Your task to perform on an android device: Add razer blade to the cart on costco.com Image 0: 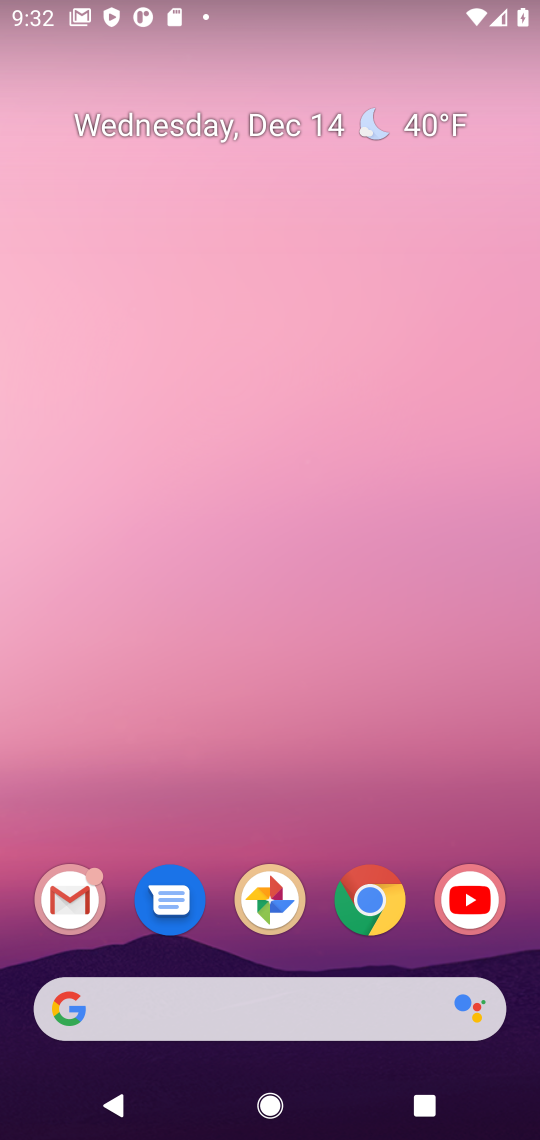
Step 0: click (361, 915)
Your task to perform on an android device: Add razer blade to the cart on costco.com Image 1: 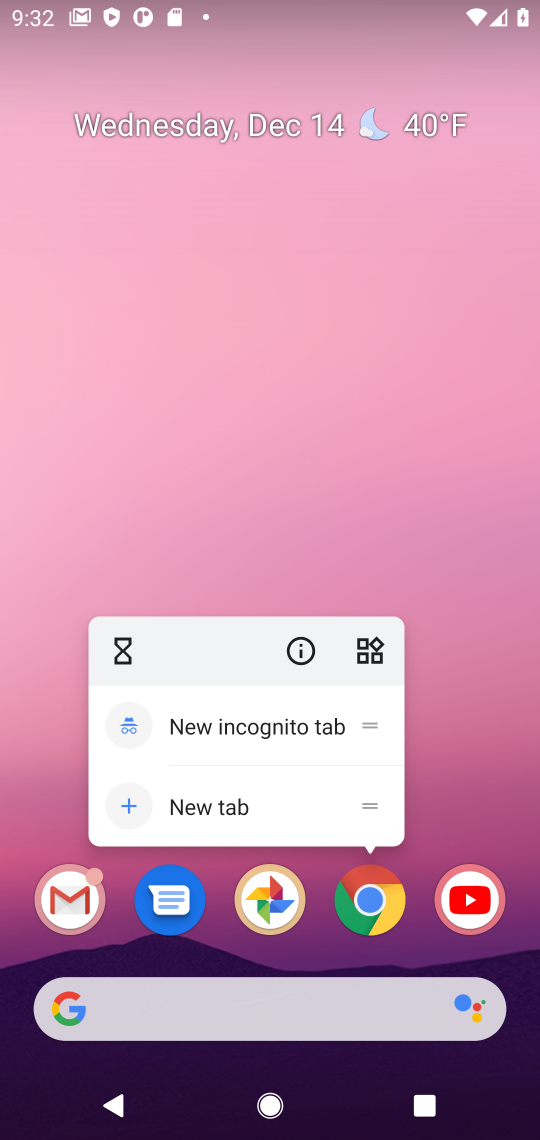
Step 1: click (366, 910)
Your task to perform on an android device: Add razer blade to the cart on costco.com Image 2: 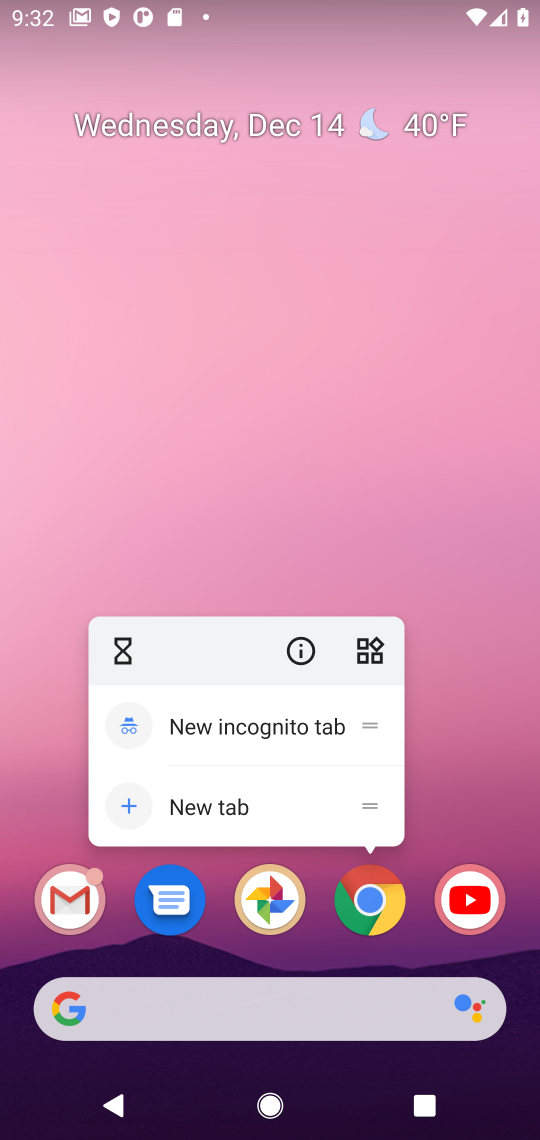
Step 2: click (386, 898)
Your task to perform on an android device: Add razer blade to the cart on costco.com Image 3: 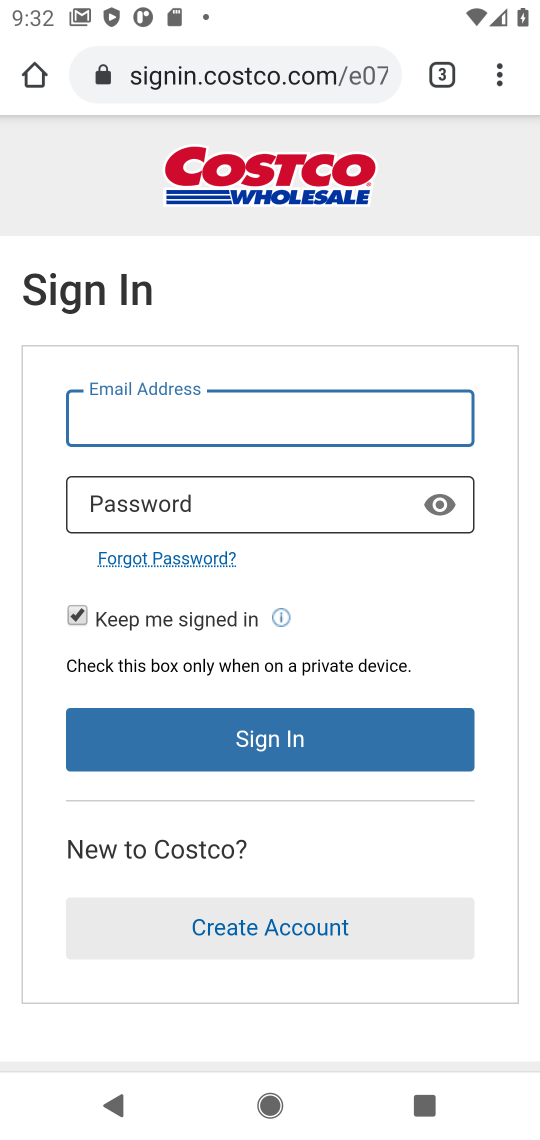
Step 3: press back button
Your task to perform on an android device: Add razer blade to the cart on costco.com Image 4: 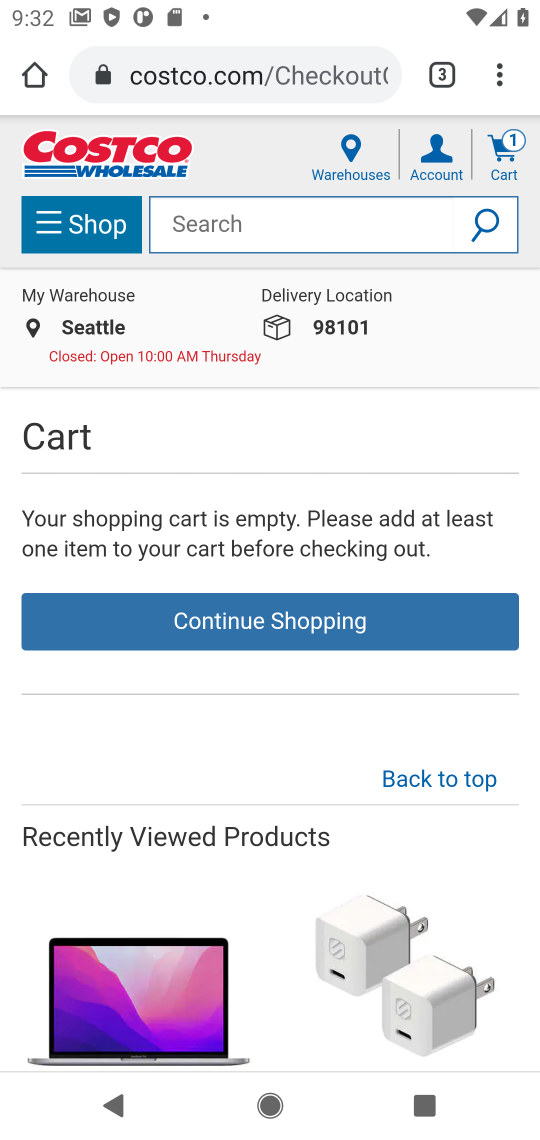
Step 4: click (239, 218)
Your task to perform on an android device: Add razer blade to the cart on costco.com Image 5: 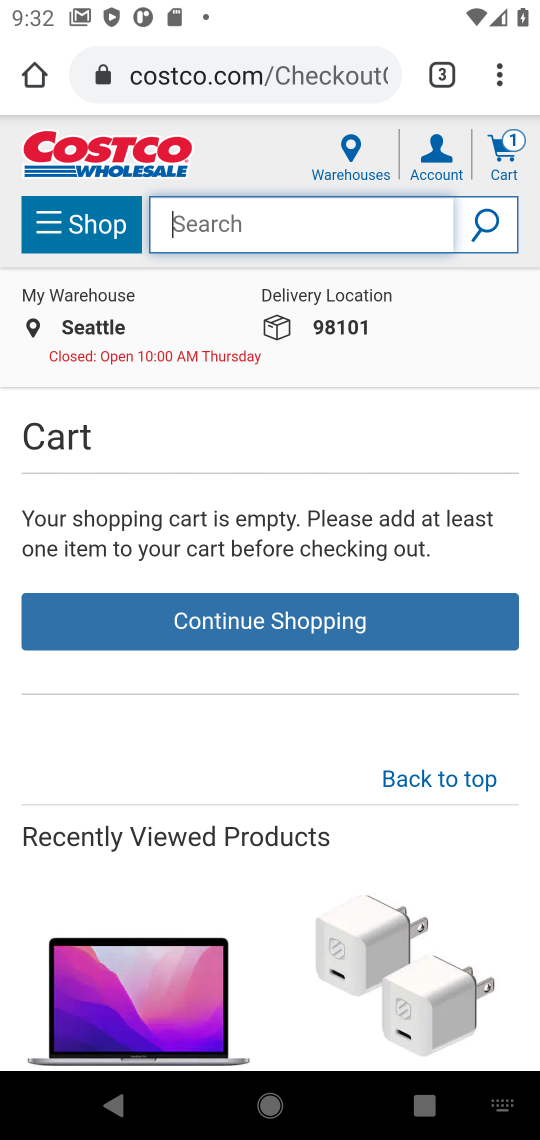
Step 5: type "razer blade"
Your task to perform on an android device: Add razer blade to the cart on costco.com Image 6: 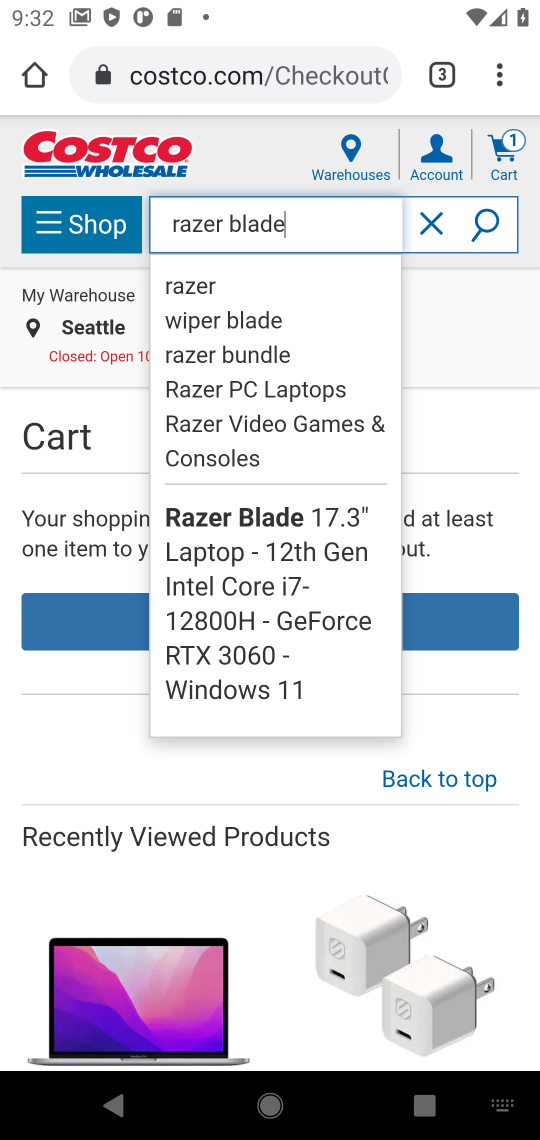
Step 6: click (480, 234)
Your task to perform on an android device: Add razer blade to the cart on costco.com Image 7: 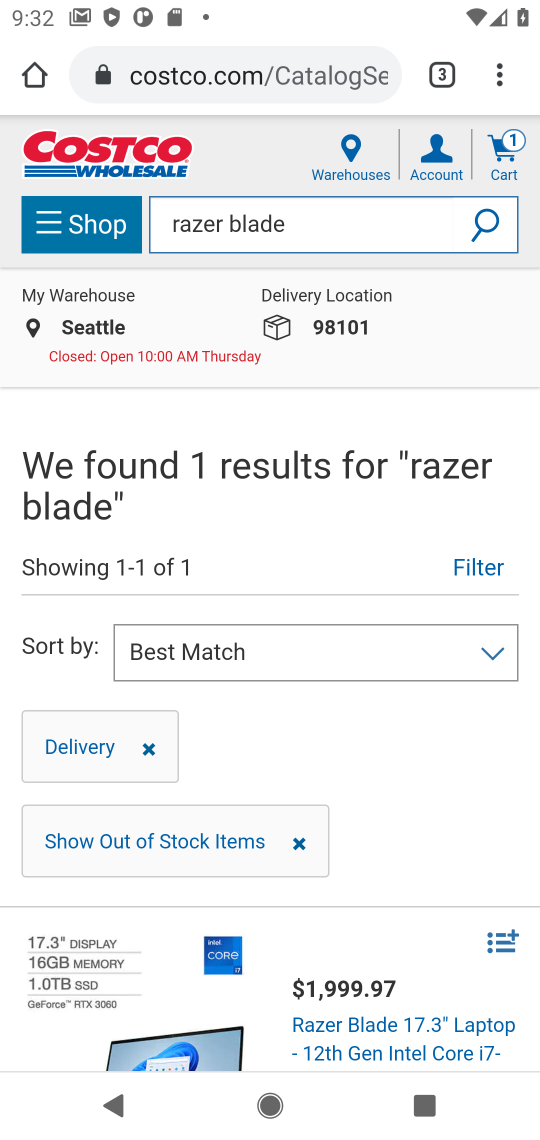
Step 7: drag from (272, 693) to (271, 377)
Your task to perform on an android device: Add razer blade to the cart on costco.com Image 8: 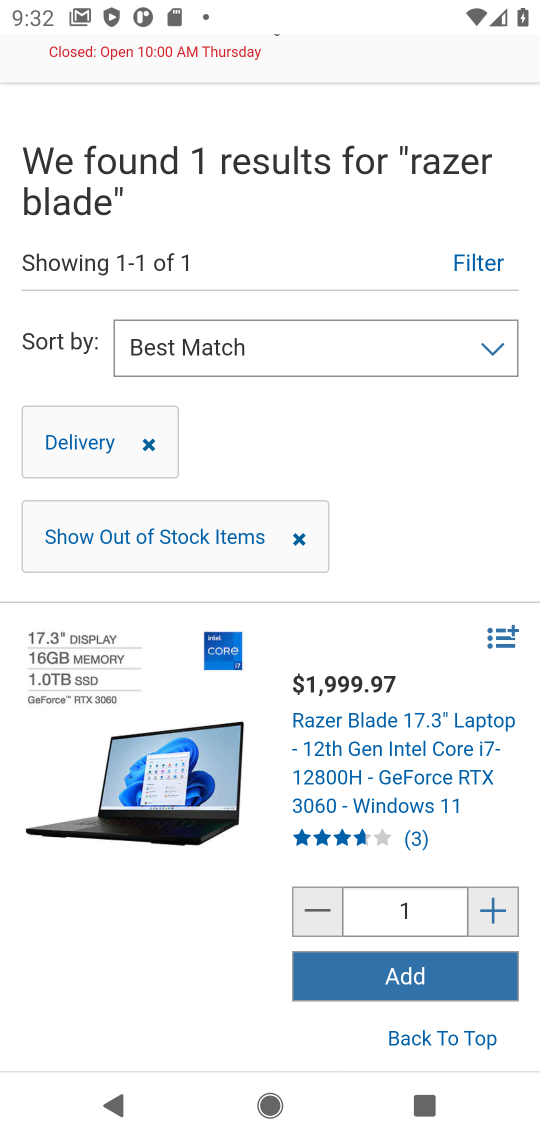
Step 8: click (356, 973)
Your task to perform on an android device: Add razer blade to the cart on costco.com Image 9: 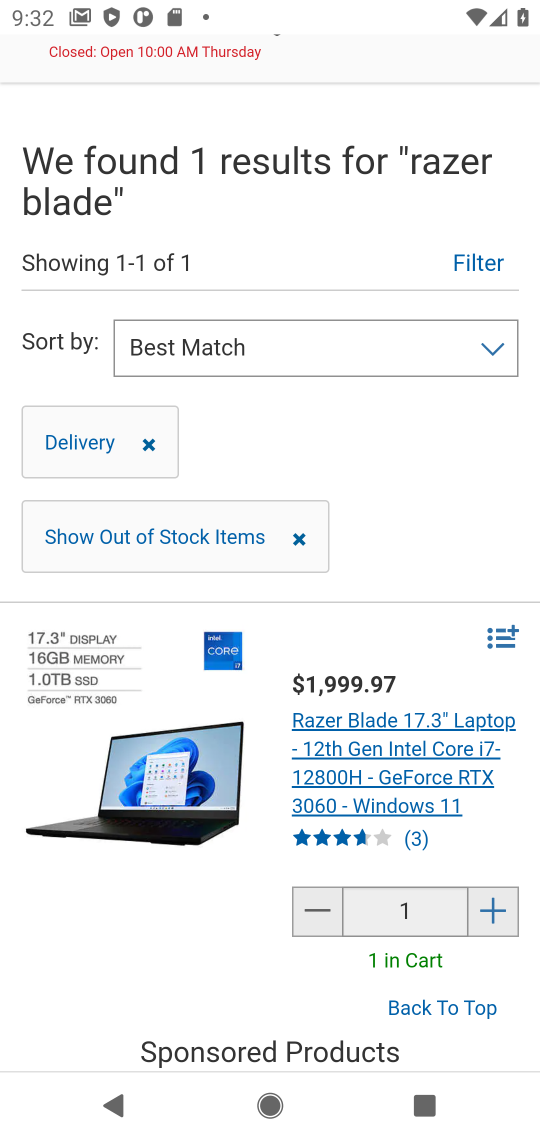
Step 9: task complete